Your task to perform on an android device: Turn off the flashlight Image 0: 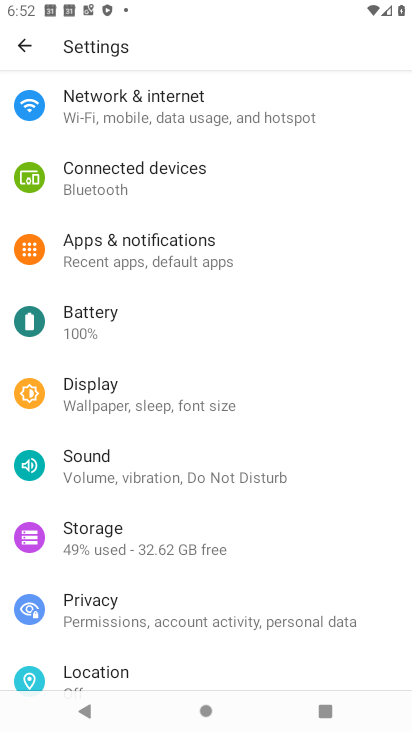
Step 0: press home button
Your task to perform on an android device: Turn off the flashlight Image 1: 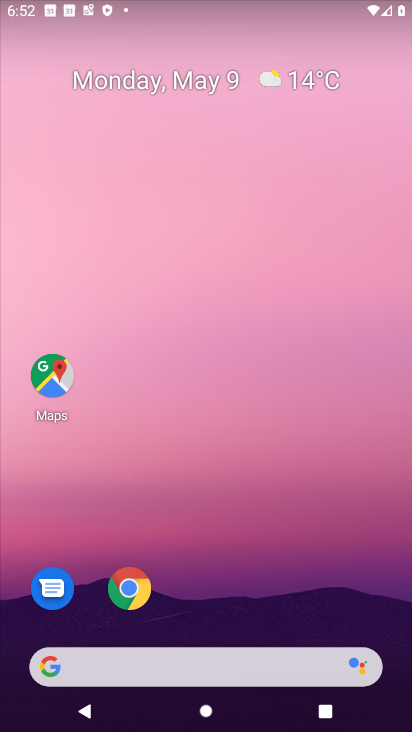
Step 1: drag from (317, 607) to (239, 89)
Your task to perform on an android device: Turn off the flashlight Image 2: 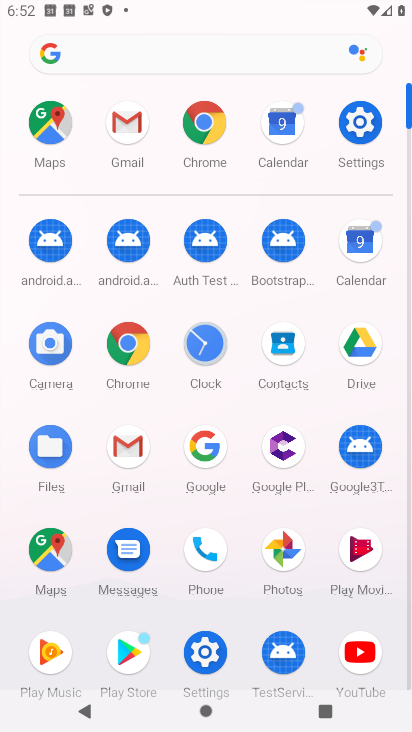
Step 2: click (353, 119)
Your task to perform on an android device: Turn off the flashlight Image 3: 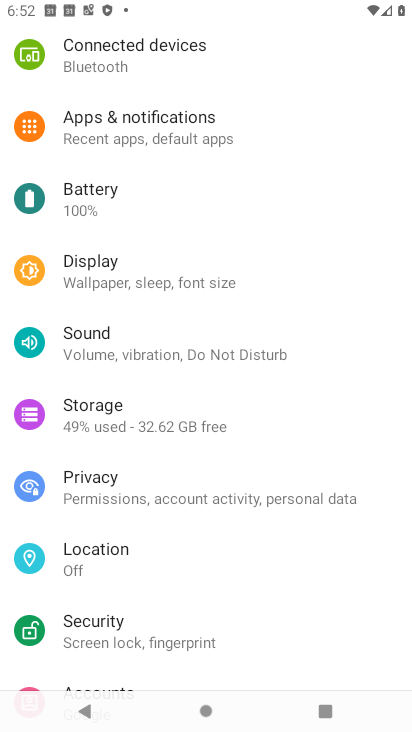
Step 3: task complete